Your task to perform on an android device: check the backup settings in the google photos Image 0: 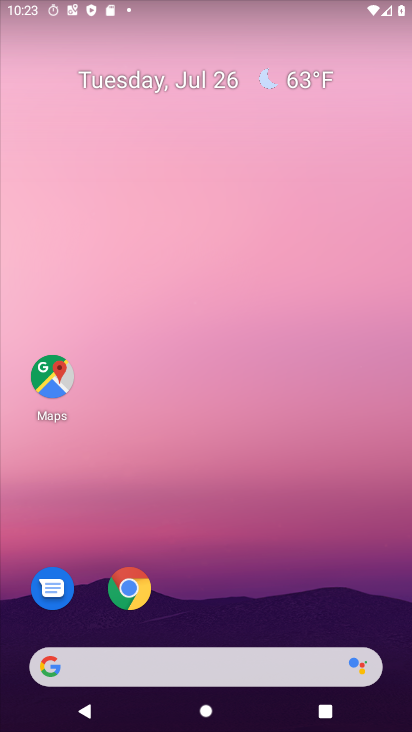
Step 0: drag from (204, 575) to (82, 32)
Your task to perform on an android device: check the backup settings in the google photos Image 1: 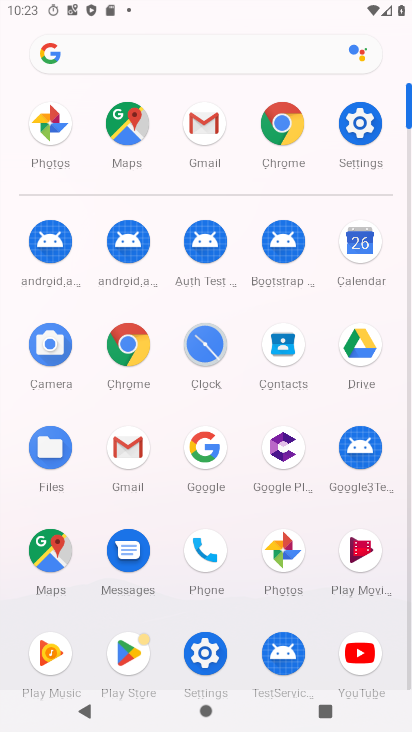
Step 1: click (46, 133)
Your task to perform on an android device: check the backup settings in the google photos Image 2: 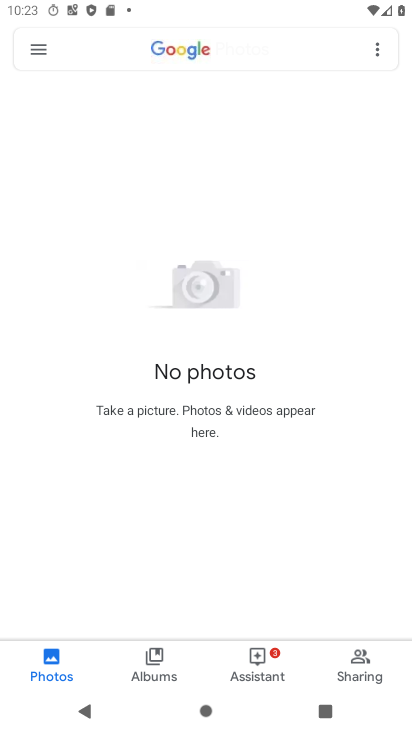
Step 2: click (37, 60)
Your task to perform on an android device: check the backup settings in the google photos Image 3: 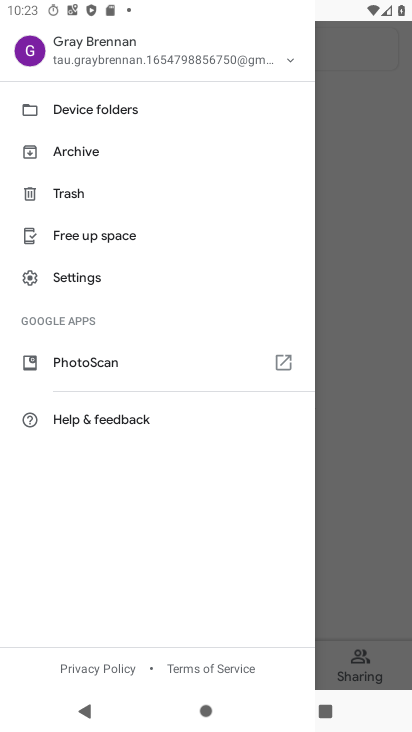
Step 3: click (53, 271)
Your task to perform on an android device: check the backup settings in the google photos Image 4: 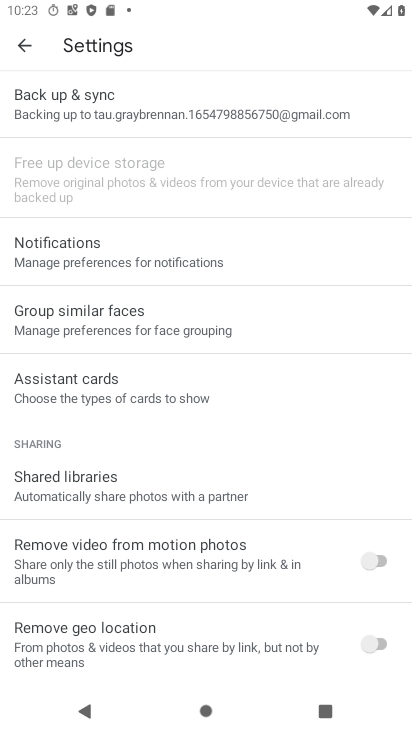
Step 4: click (92, 112)
Your task to perform on an android device: check the backup settings in the google photos Image 5: 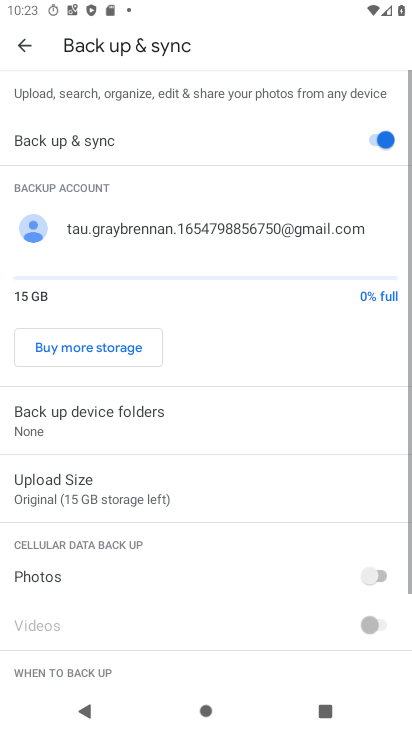
Step 5: task complete